Your task to perform on an android device: change the upload size in google photos Image 0: 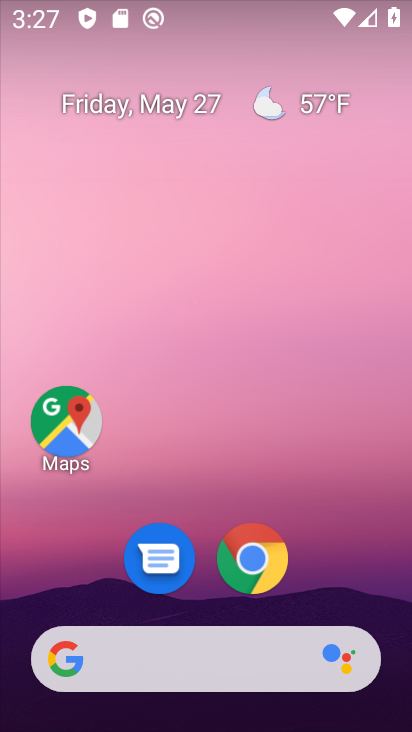
Step 0: drag from (375, 572) to (218, 6)
Your task to perform on an android device: change the upload size in google photos Image 1: 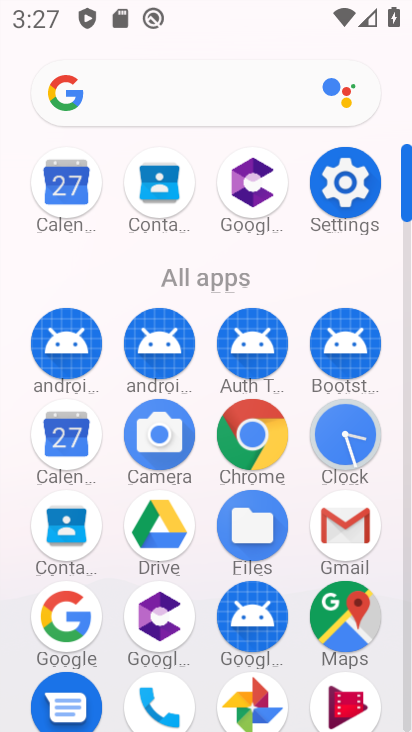
Step 1: click (254, 703)
Your task to perform on an android device: change the upload size in google photos Image 2: 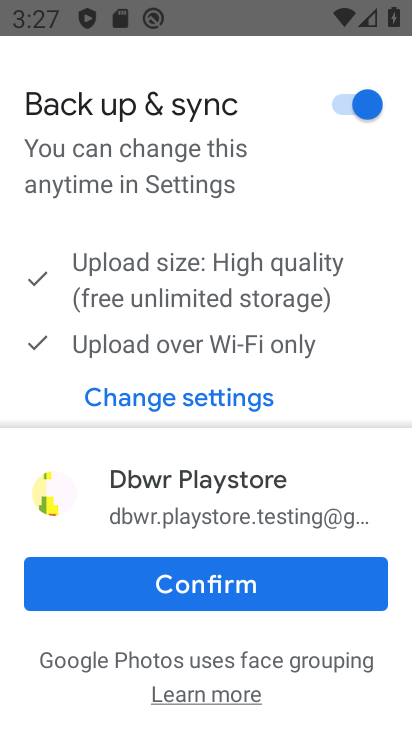
Step 2: click (28, 86)
Your task to perform on an android device: change the upload size in google photos Image 3: 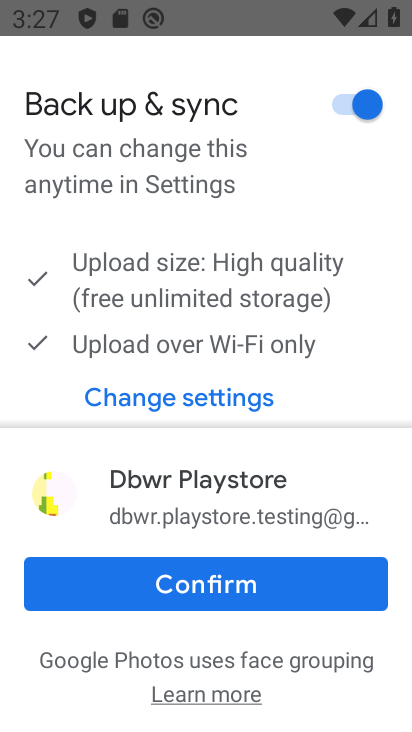
Step 3: click (268, 574)
Your task to perform on an android device: change the upload size in google photos Image 4: 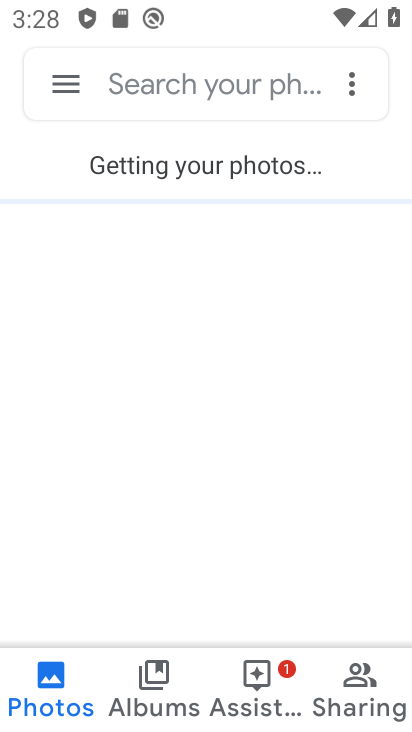
Step 4: click (51, 89)
Your task to perform on an android device: change the upload size in google photos Image 5: 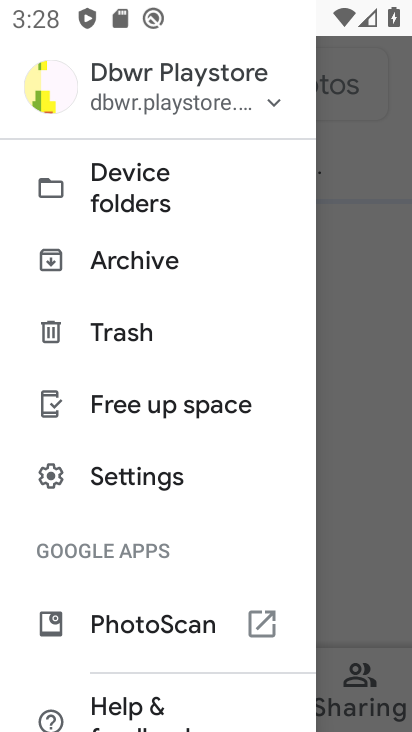
Step 5: click (340, 542)
Your task to perform on an android device: change the upload size in google photos Image 6: 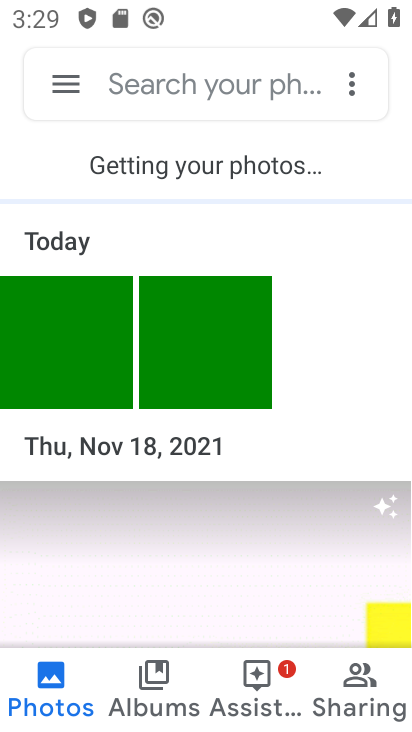
Step 6: task complete